Your task to perform on an android device: see tabs open on other devices in the chrome app Image 0: 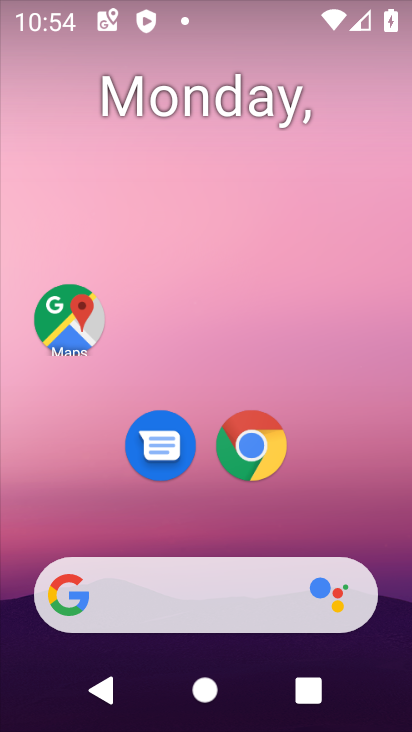
Step 0: click (250, 445)
Your task to perform on an android device: see tabs open on other devices in the chrome app Image 1: 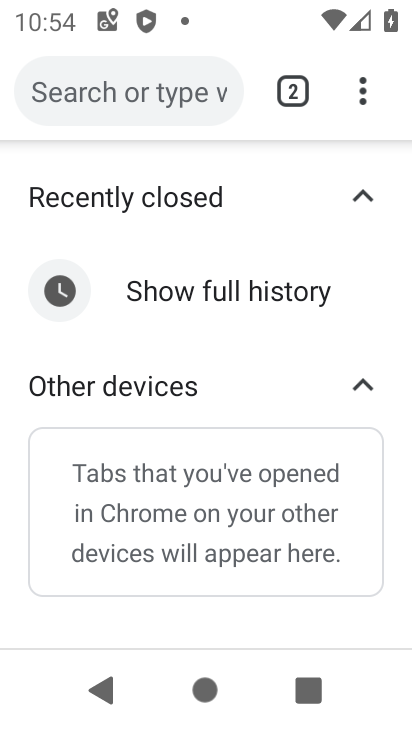
Step 1: task complete